Your task to perform on an android device: Open Google Chrome and open the bookmarks view Image 0: 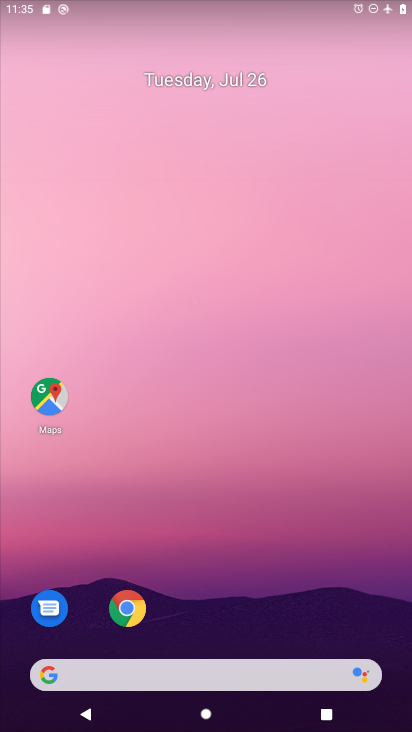
Step 0: drag from (260, 638) to (291, 67)
Your task to perform on an android device: Open Google Chrome and open the bookmarks view Image 1: 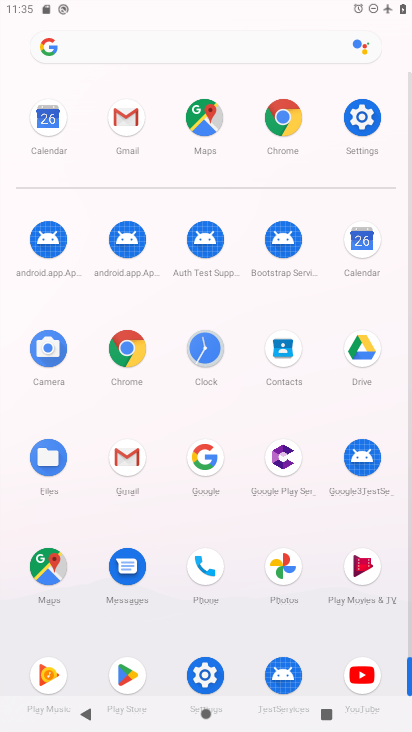
Step 1: click (284, 112)
Your task to perform on an android device: Open Google Chrome and open the bookmarks view Image 2: 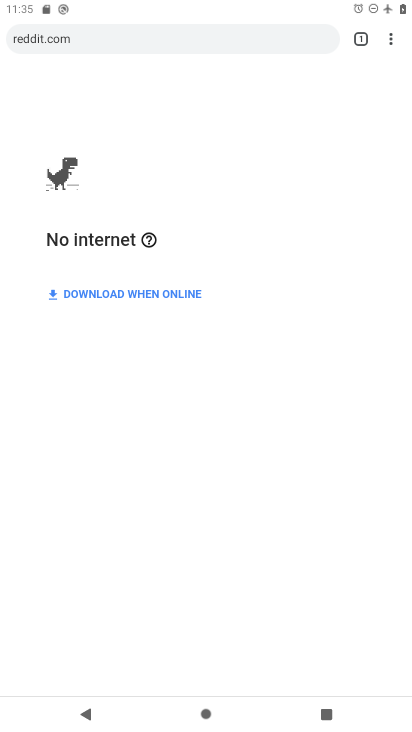
Step 2: task complete